Your task to perform on an android device: Open the calendar app, open the side menu, and click the "Day" option Image 0: 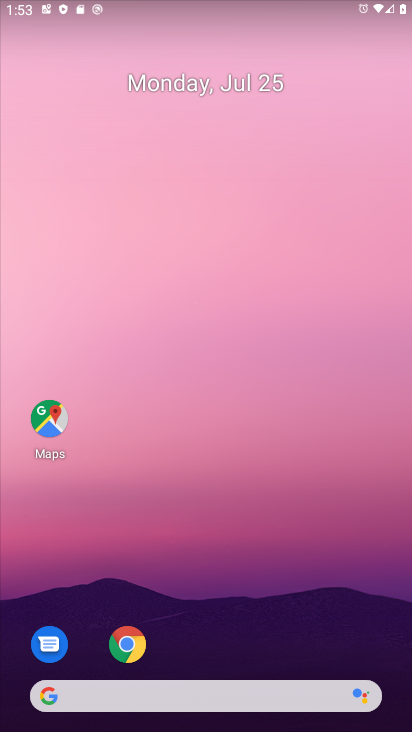
Step 0: drag from (359, 664) to (180, 22)
Your task to perform on an android device: Open the calendar app, open the side menu, and click the "Day" option Image 1: 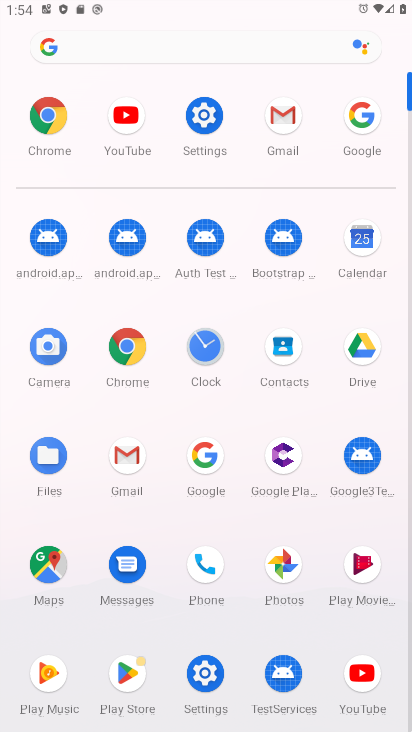
Step 1: click (353, 228)
Your task to perform on an android device: Open the calendar app, open the side menu, and click the "Day" option Image 2: 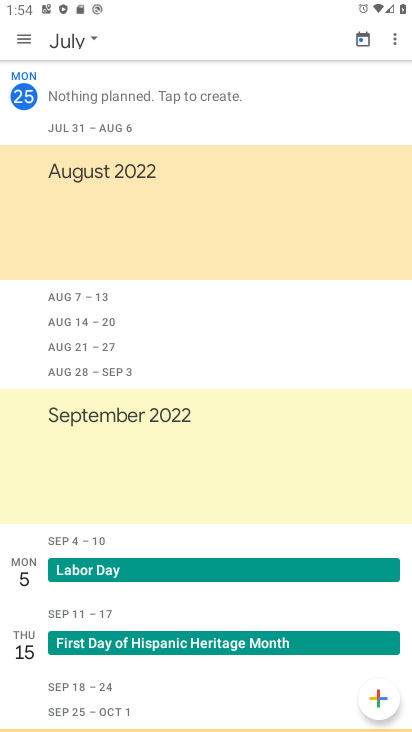
Step 2: click (15, 41)
Your task to perform on an android device: Open the calendar app, open the side menu, and click the "Day" option Image 3: 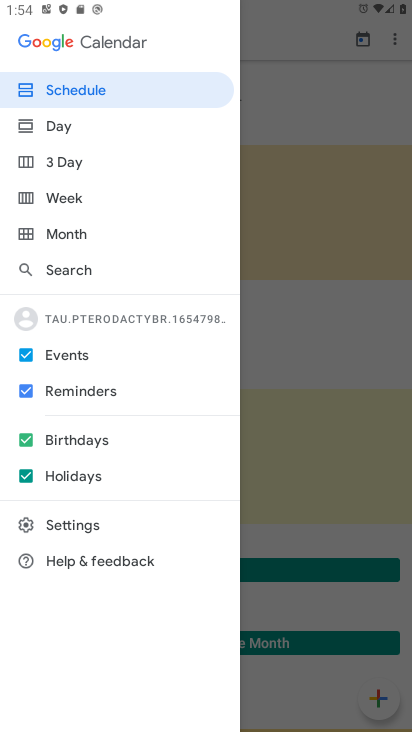
Step 3: click (64, 131)
Your task to perform on an android device: Open the calendar app, open the side menu, and click the "Day" option Image 4: 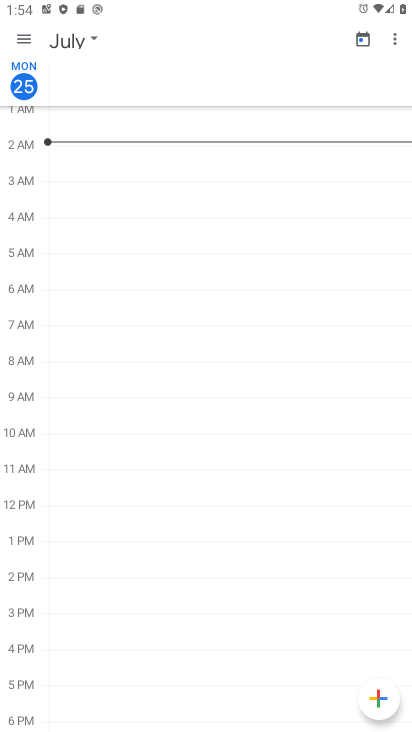
Step 4: task complete